Your task to perform on an android device: turn on the 12-hour format for clock Image 0: 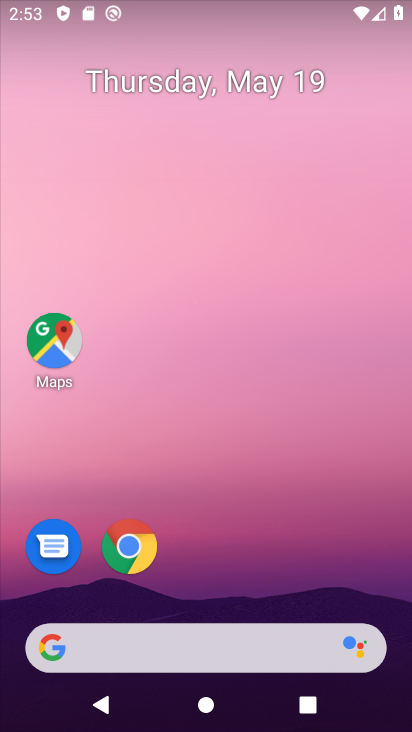
Step 0: drag from (247, 603) to (291, 221)
Your task to perform on an android device: turn on the 12-hour format for clock Image 1: 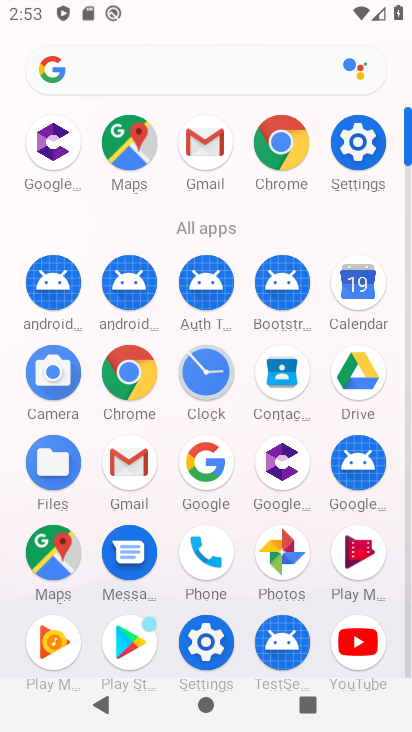
Step 1: click (211, 645)
Your task to perform on an android device: turn on the 12-hour format for clock Image 2: 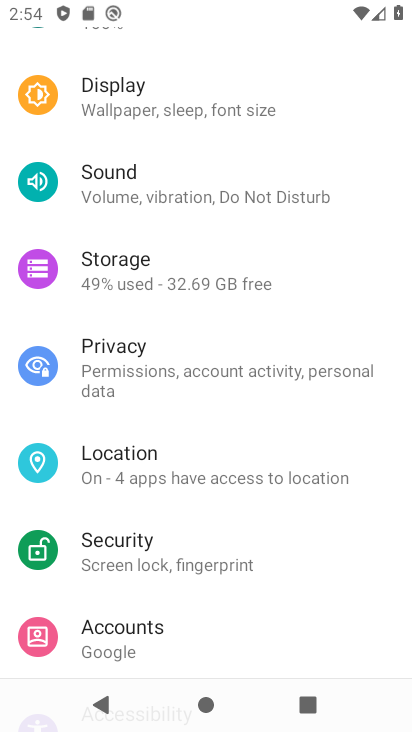
Step 2: drag from (180, 581) to (210, 359)
Your task to perform on an android device: turn on the 12-hour format for clock Image 3: 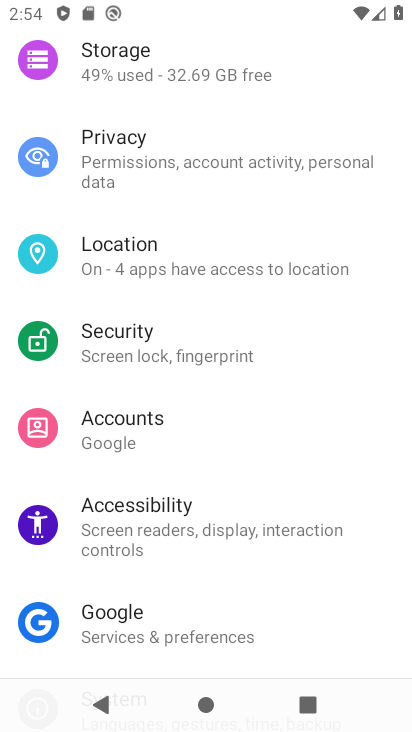
Step 3: drag from (188, 604) to (228, 355)
Your task to perform on an android device: turn on the 12-hour format for clock Image 4: 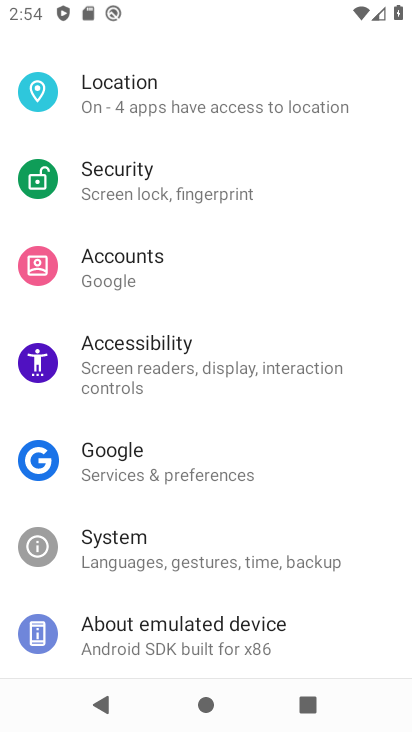
Step 4: click (178, 557)
Your task to perform on an android device: turn on the 12-hour format for clock Image 5: 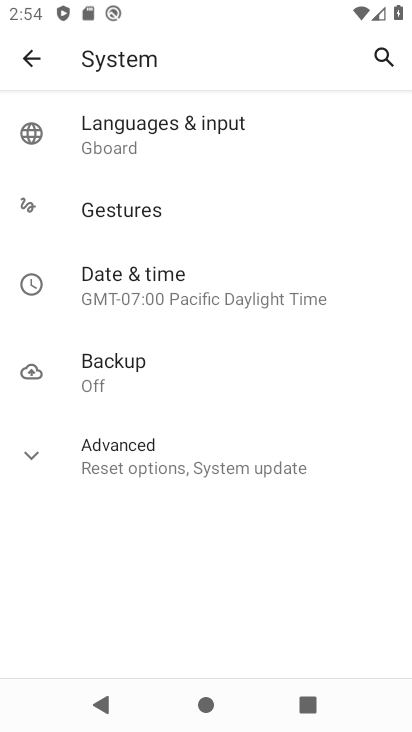
Step 5: click (159, 283)
Your task to perform on an android device: turn on the 12-hour format for clock Image 6: 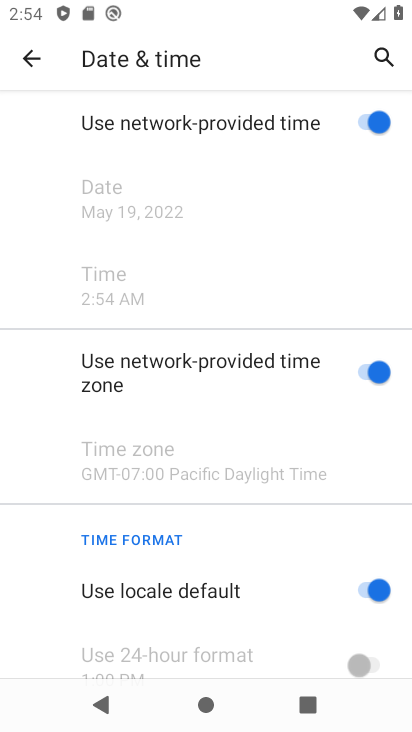
Step 6: task complete